Your task to perform on an android device: see tabs open on other devices in the chrome app Image 0: 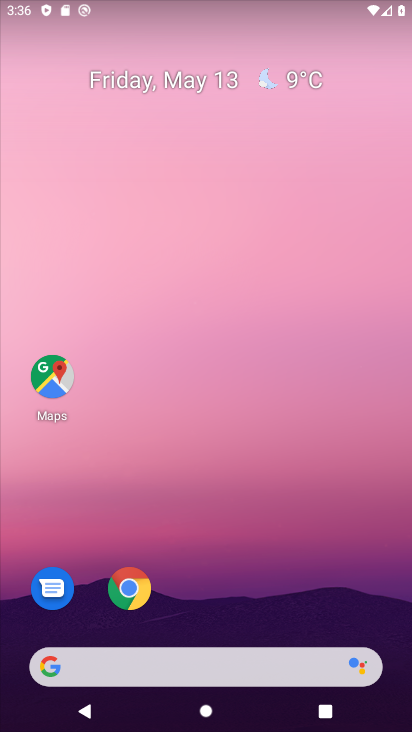
Step 0: click (136, 589)
Your task to perform on an android device: see tabs open on other devices in the chrome app Image 1: 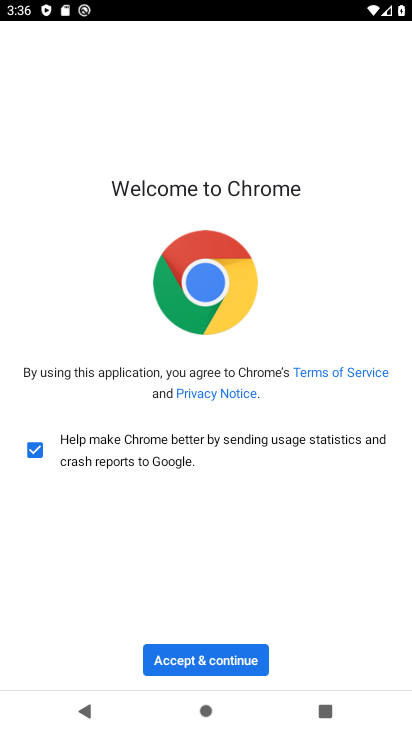
Step 1: click (202, 639)
Your task to perform on an android device: see tabs open on other devices in the chrome app Image 2: 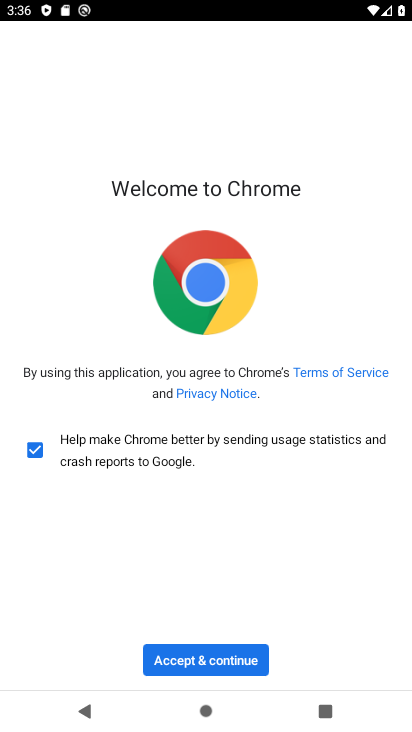
Step 2: click (252, 665)
Your task to perform on an android device: see tabs open on other devices in the chrome app Image 3: 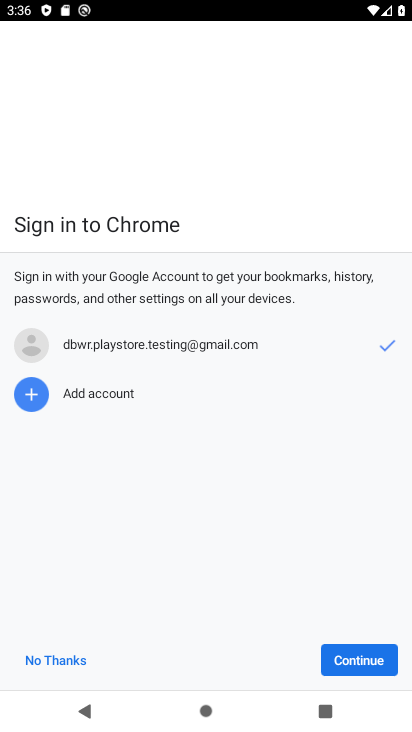
Step 3: click (343, 667)
Your task to perform on an android device: see tabs open on other devices in the chrome app Image 4: 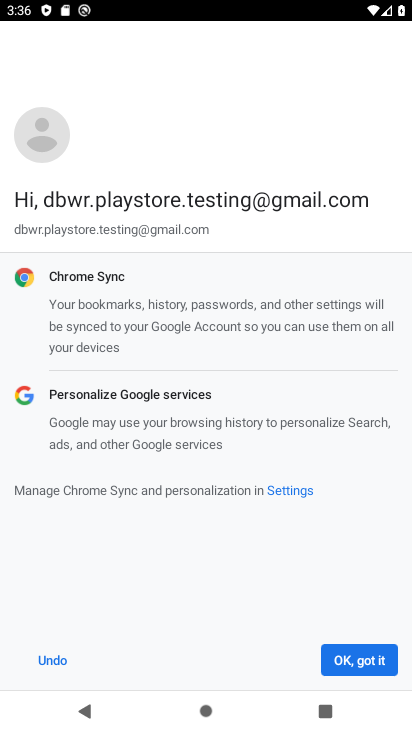
Step 4: click (343, 666)
Your task to perform on an android device: see tabs open on other devices in the chrome app Image 5: 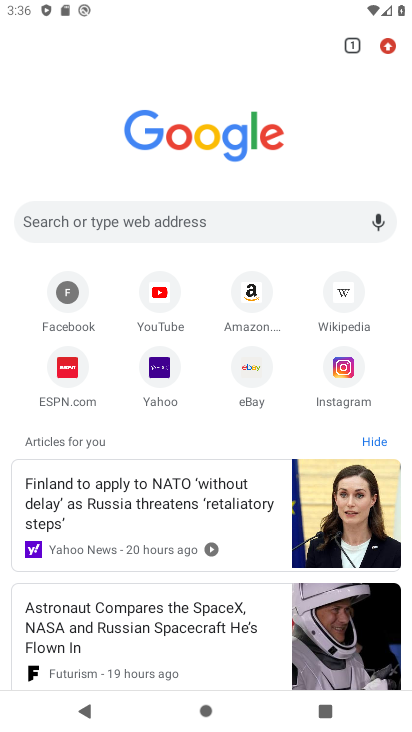
Step 5: task complete